Your task to perform on an android device: empty trash in the gmail app Image 0: 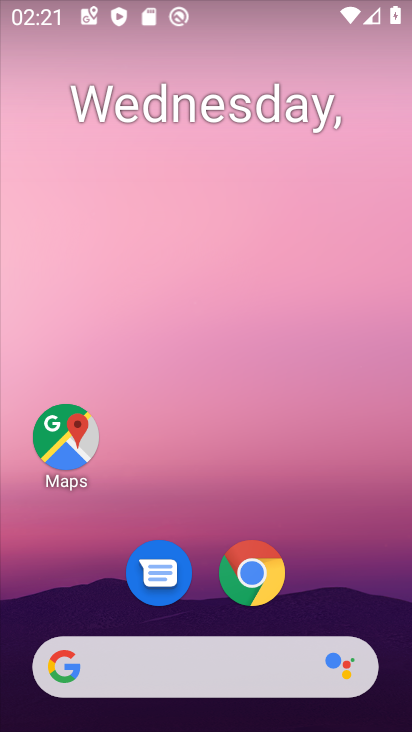
Step 0: drag from (179, 516) to (408, 166)
Your task to perform on an android device: empty trash in the gmail app Image 1: 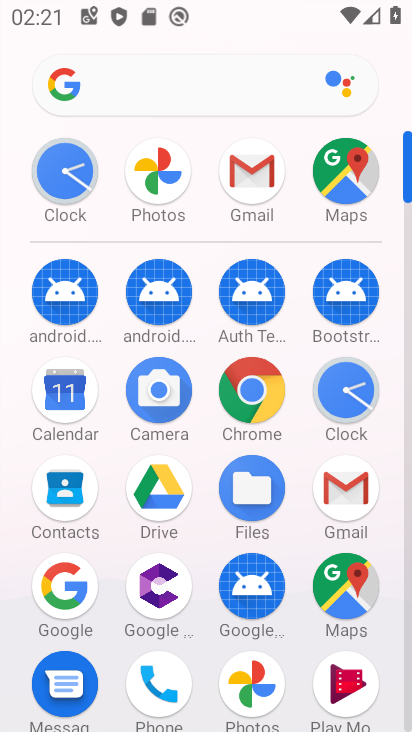
Step 1: click (249, 171)
Your task to perform on an android device: empty trash in the gmail app Image 2: 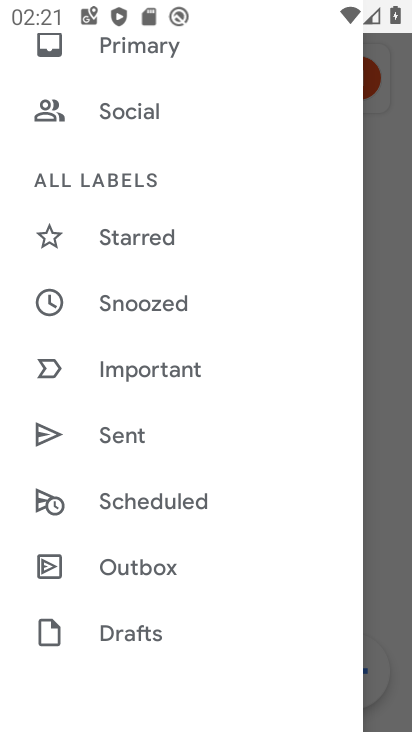
Step 2: drag from (159, 242) to (152, 396)
Your task to perform on an android device: empty trash in the gmail app Image 3: 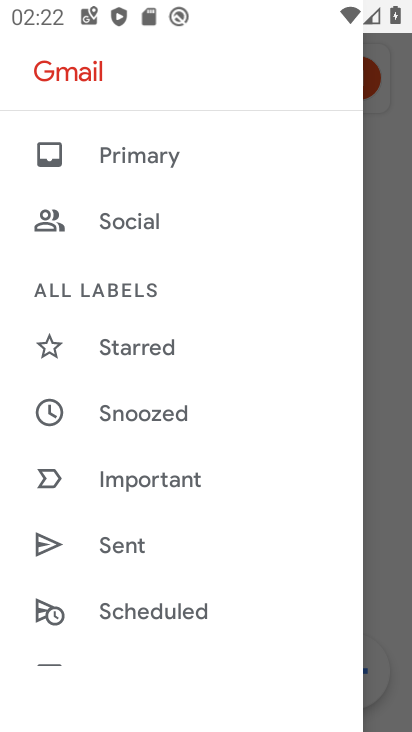
Step 3: drag from (178, 541) to (227, 336)
Your task to perform on an android device: empty trash in the gmail app Image 4: 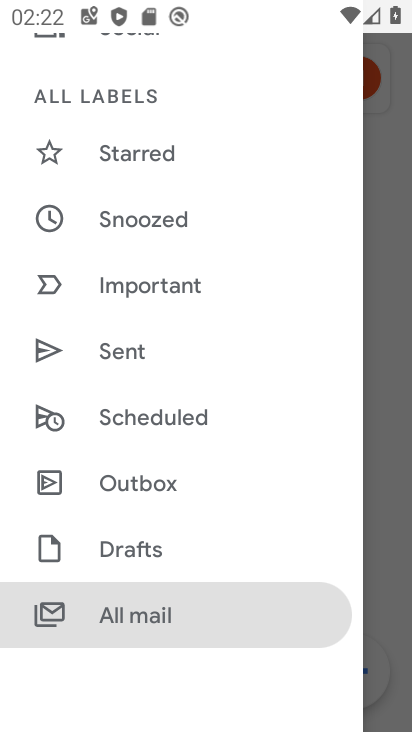
Step 4: drag from (181, 502) to (238, 353)
Your task to perform on an android device: empty trash in the gmail app Image 5: 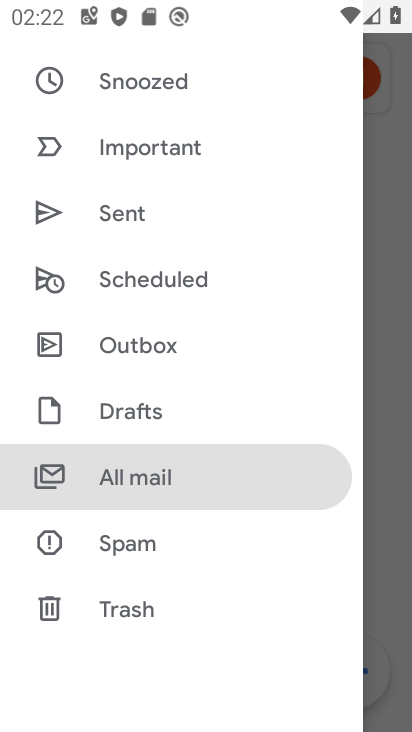
Step 5: drag from (189, 545) to (245, 398)
Your task to perform on an android device: empty trash in the gmail app Image 6: 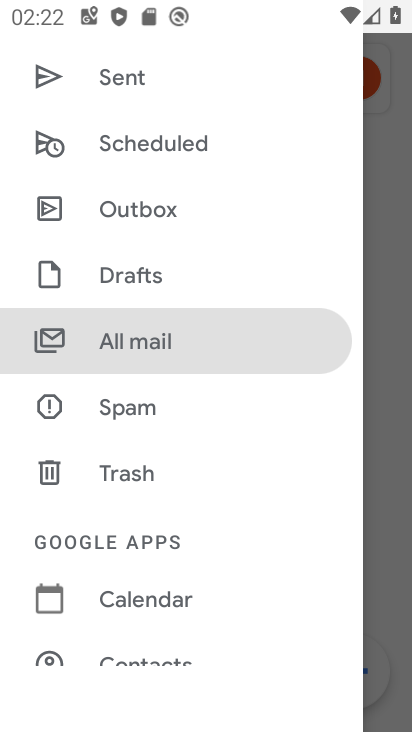
Step 6: click (131, 472)
Your task to perform on an android device: empty trash in the gmail app Image 7: 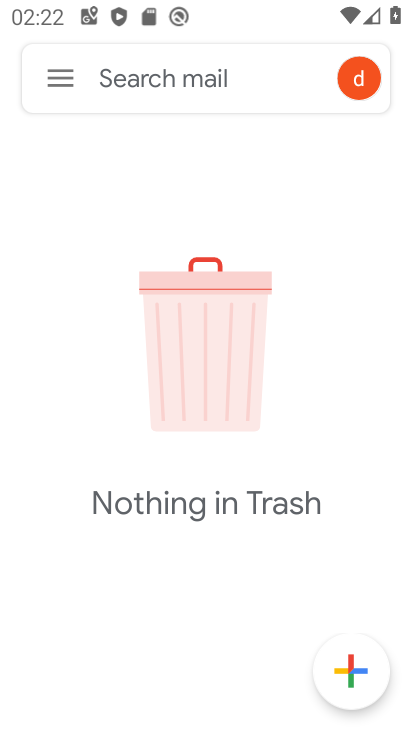
Step 7: task complete